Your task to perform on an android device: open chrome and create a bookmark for the current page Image 0: 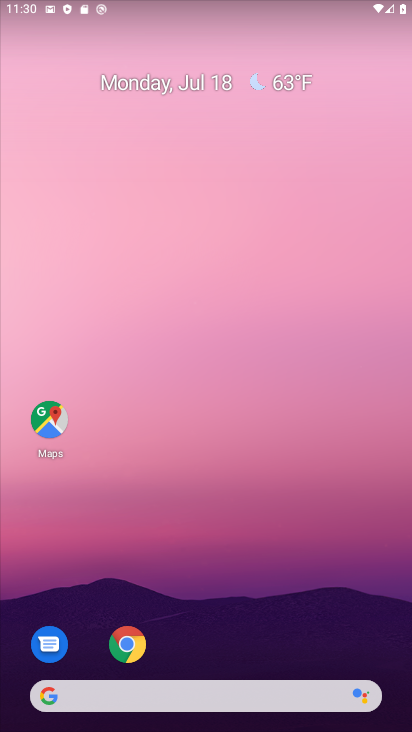
Step 0: click (128, 638)
Your task to perform on an android device: open chrome and create a bookmark for the current page Image 1: 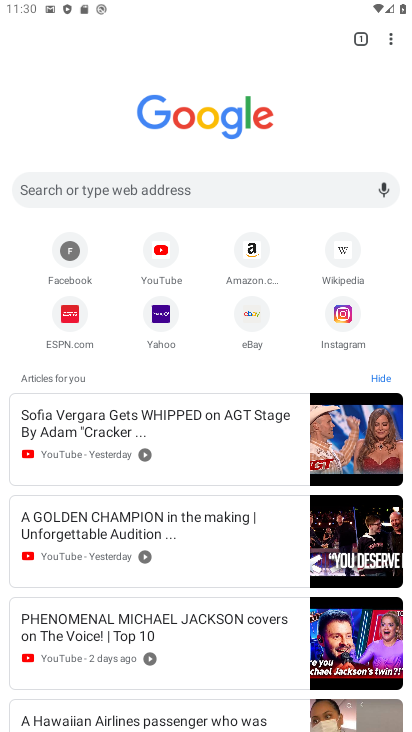
Step 1: click (392, 43)
Your task to perform on an android device: open chrome and create a bookmark for the current page Image 2: 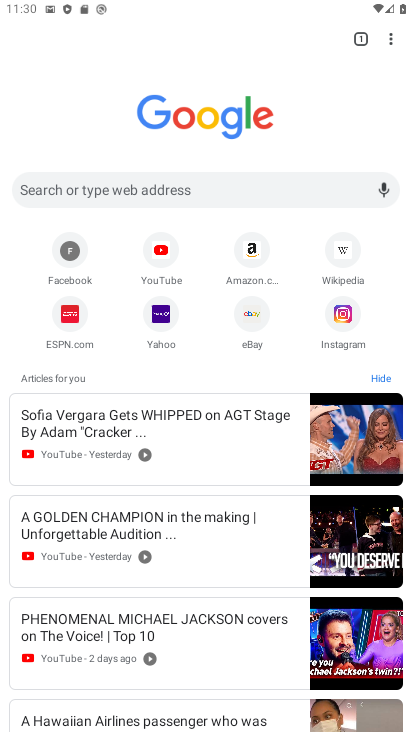
Step 2: click (395, 35)
Your task to perform on an android device: open chrome and create a bookmark for the current page Image 3: 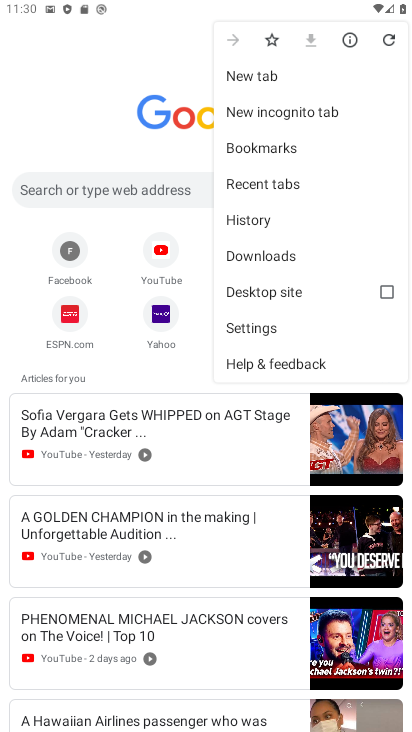
Step 3: click (276, 37)
Your task to perform on an android device: open chrome and create a bookmark for the current page Image 4: 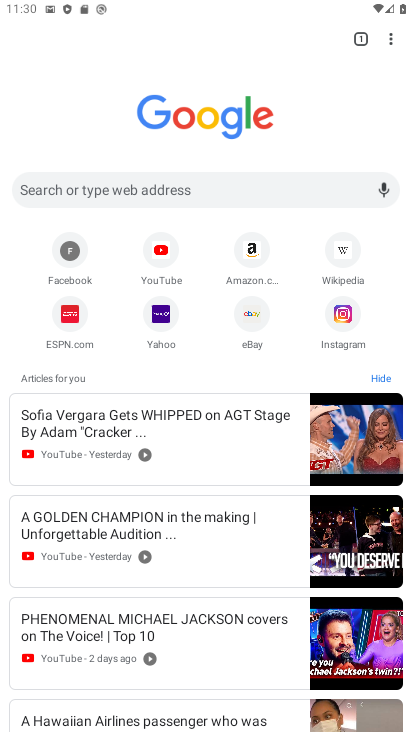
Step 4: task complete